Your task to perform on an android device: turn on notifications settings in the gmail app Image 0: 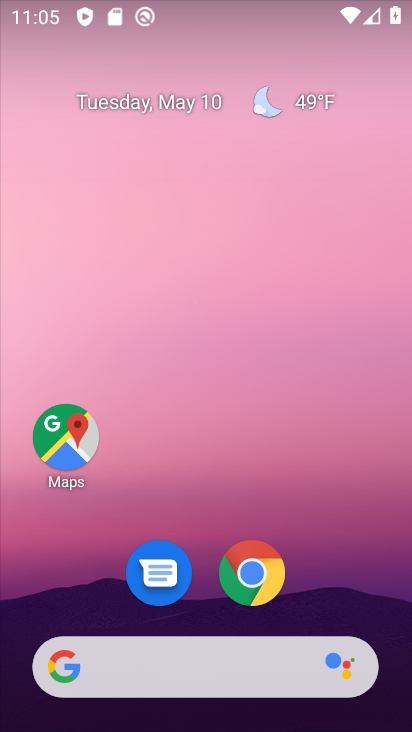
Step 0: drag from (138, 675) to (256, 212)
Your task to perform on an android device: turn on notifications settings in the gmail app Image 1: 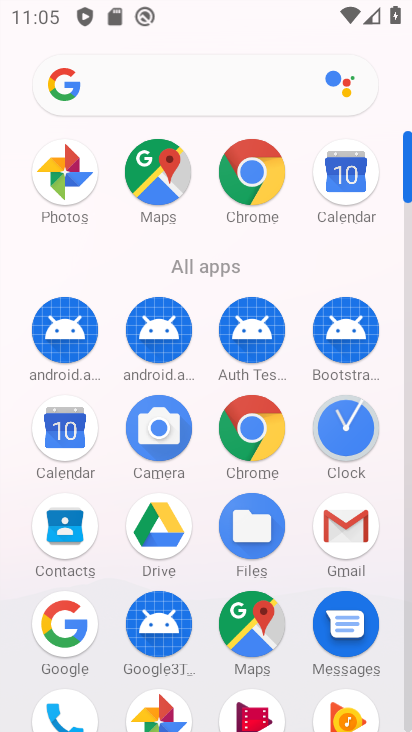
Step 1: click (342, 523)
Your task to perform on an android device: turn on notifications settings in the gmail app Image 2: 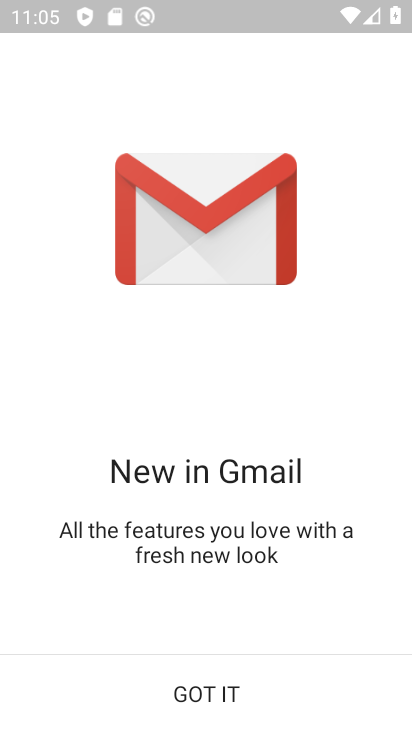
Step 2: click (218, 689)
Your task to perform on an android device: turn on notifications settings in the gmail app Image 3: 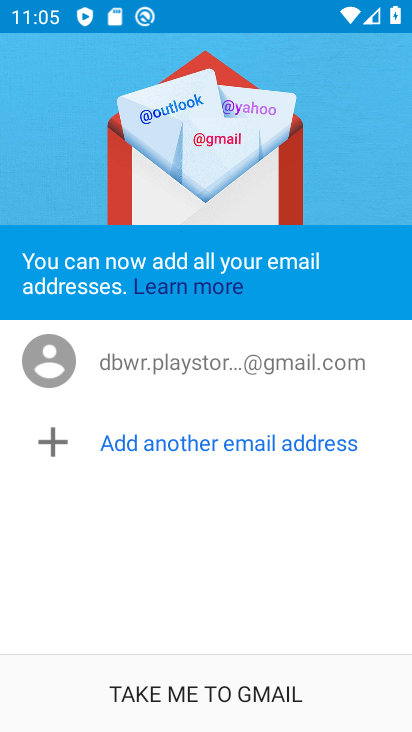
Step 3: click (213, 689)
Your task to perform on an android device: turn on notifications settings in the gmail app Image 4: 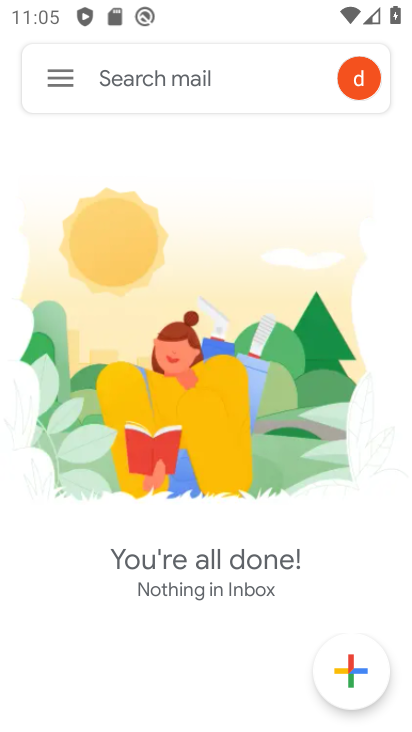
Step 4: click (61, 82)
Your task to perform on an android device: turn on notifications settings in the gmail app Image 5: 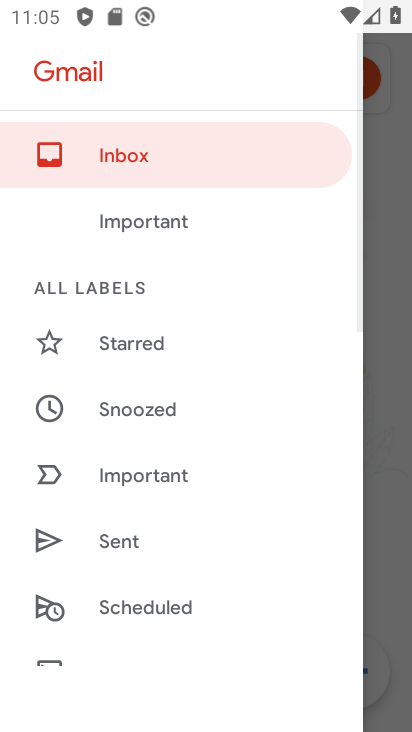
Step 5: drag from (174, 600) to (317, 137)
Your task to perform on an android device: turn on notifications settings in the gmail app Image 6: 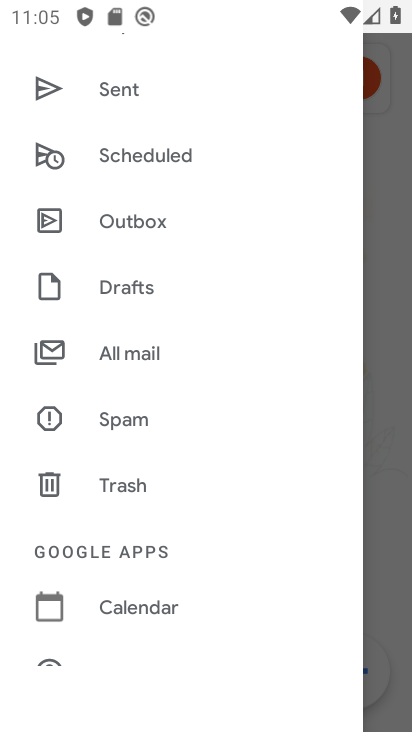
Step 6: drag from (192, 552) to (295, 123)
Your task to perform on an android device: turn on notifications settings in the gmail app Image 7: 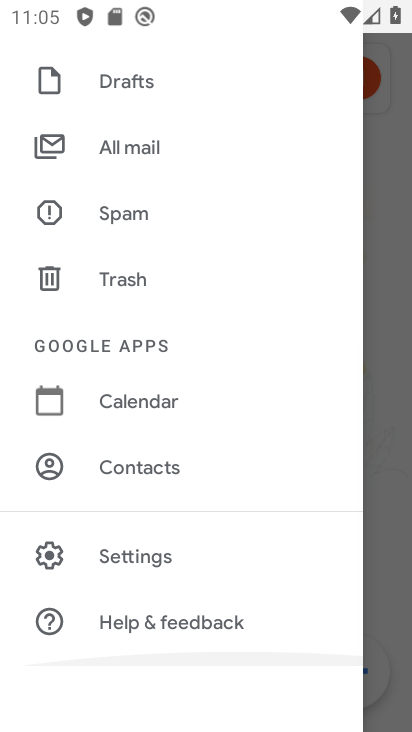
Step 7: click (158, 556)
Your task to perform on an android device: turn on notifications settings in the gmail app Image 8: 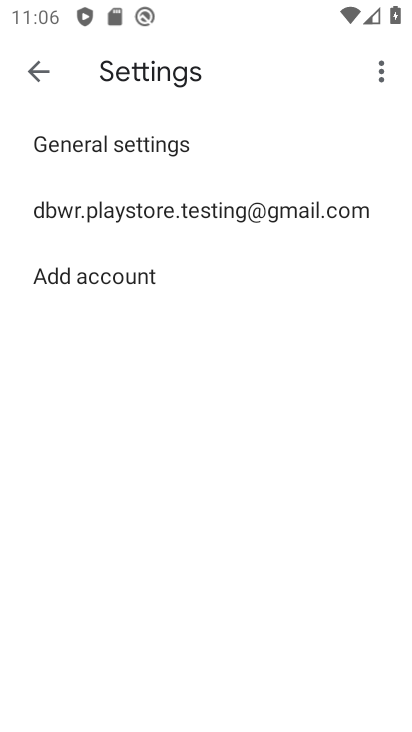
Step 8: click (256, 211)
Your task to perform on an android device: turn on notifications settings in the gmail app Image 9: 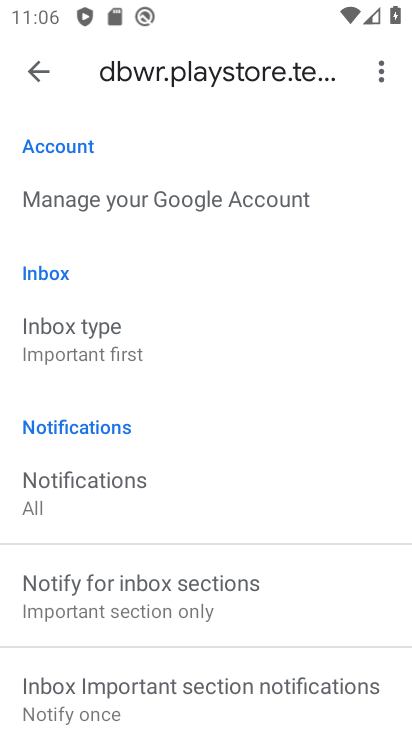
Step 9: click (80, 498)
Your task to perform on an android device: turn on notifications settings in the gmail app Image 10: 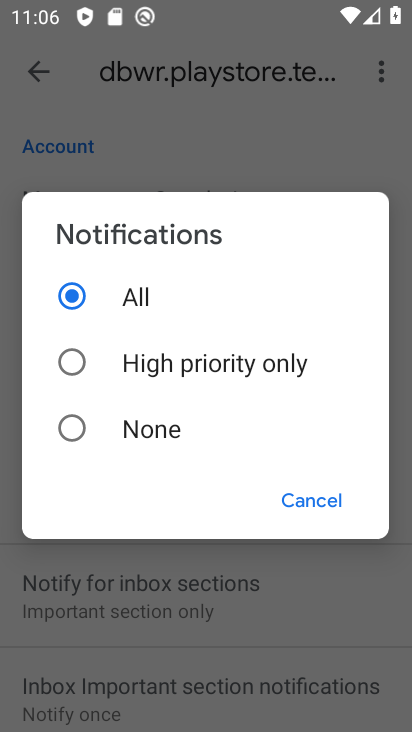
Step 10: task complete